Your task to perform on an android device: turn on javascript in the chrome app Image 0: 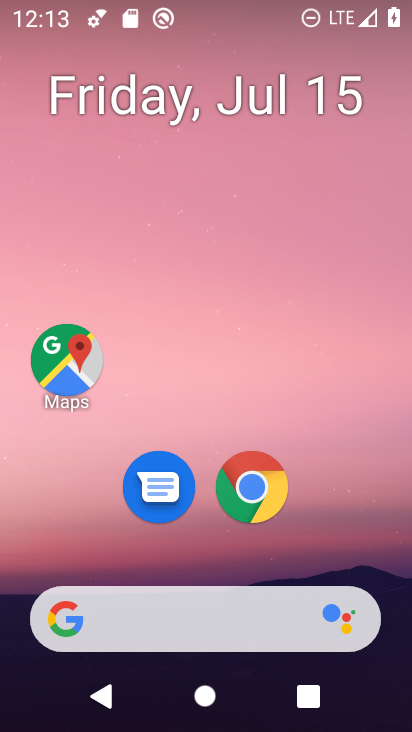
Step 0: drag from (246, 624) to (250, 62)
Your task to perform on an android device: turn on javascript in the chrome app Image 1: 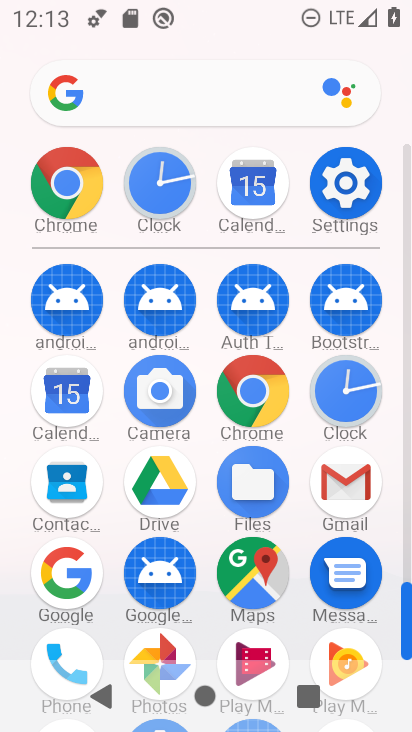
Step 1: click (252, 402)
Your task to perform on an android device: turn on javascript in the chrome app Image 2: 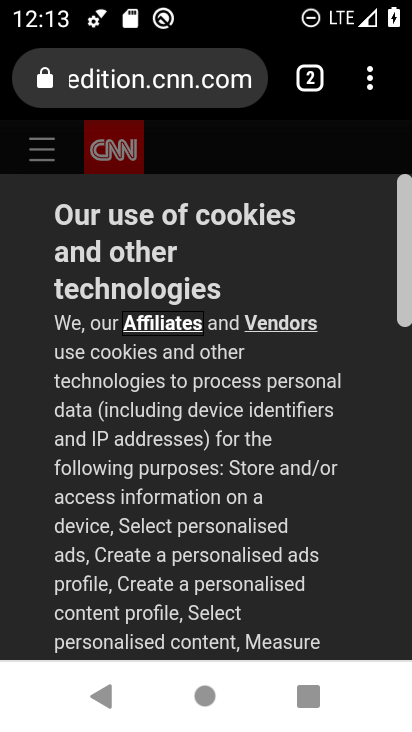
Step 2: click (371, 100)
Your task to perform on an android device: turn on javascript in the chrome app Image 3: 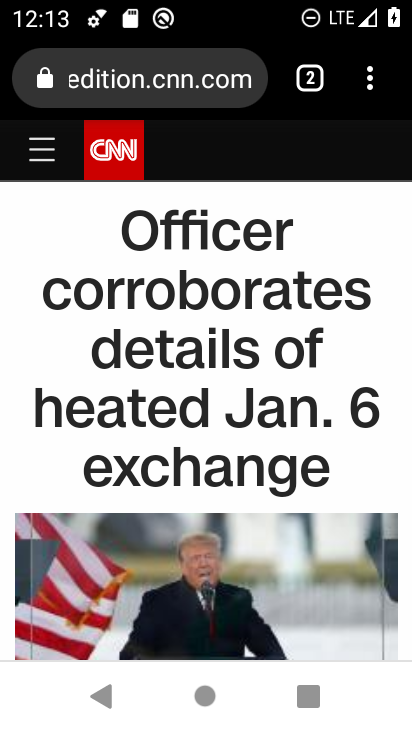
Step 3: click (364, 94)
Your task to perform on an android device: turn on javascript in the chrome app Image 4: 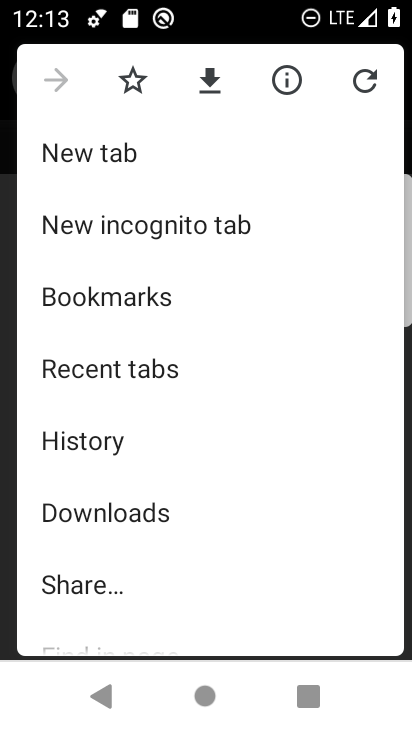
Step 4: drag from (183, 529) to (212, 95)
Your task to perform on an android device: turn on javascript in the chrome app Image 5: 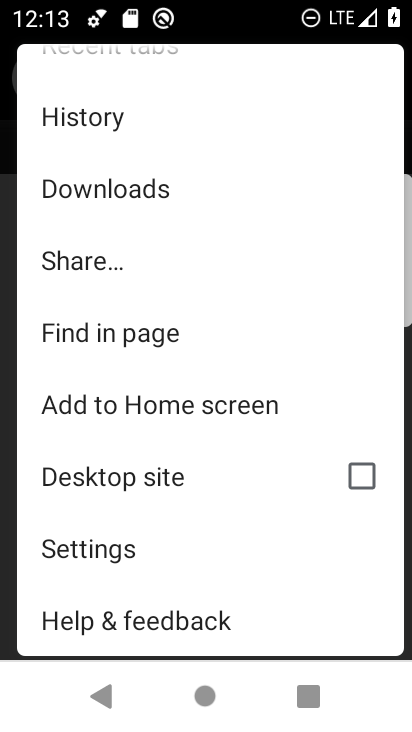
Step 5: click (130, 552)
Your task to perform on an android device: turn on javascript in the chrome app Image 6: 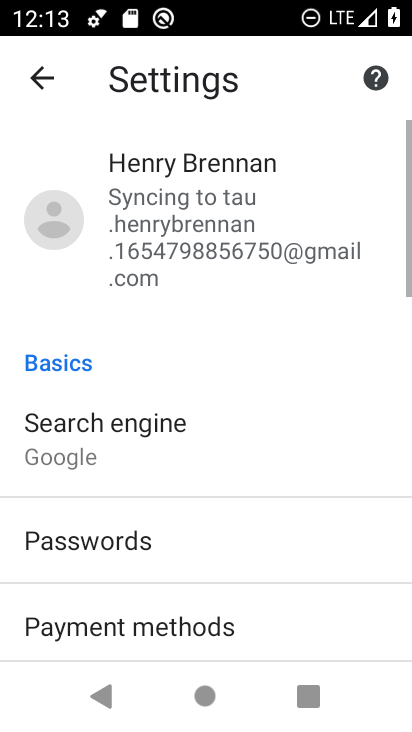
Step 6: drag from (134, 545) to (161, 207)
Your task to perform on an android device: turn on javascript in the chrome app Image 7: 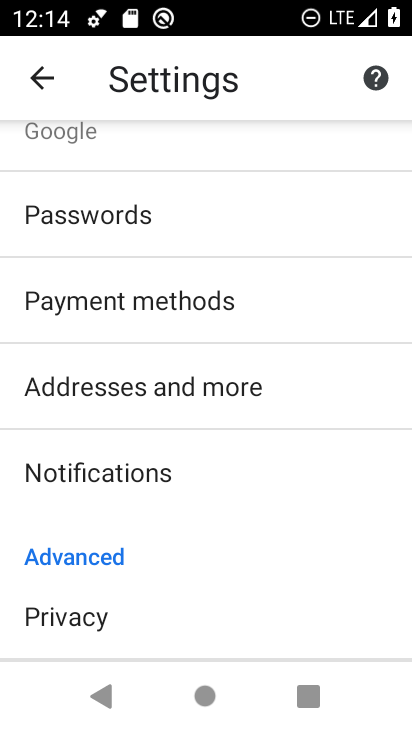
Step 7: drag from (151, 550) to (147, 261)
Your task to perform on an android device: turn on javascript in the chrome app Image 8: 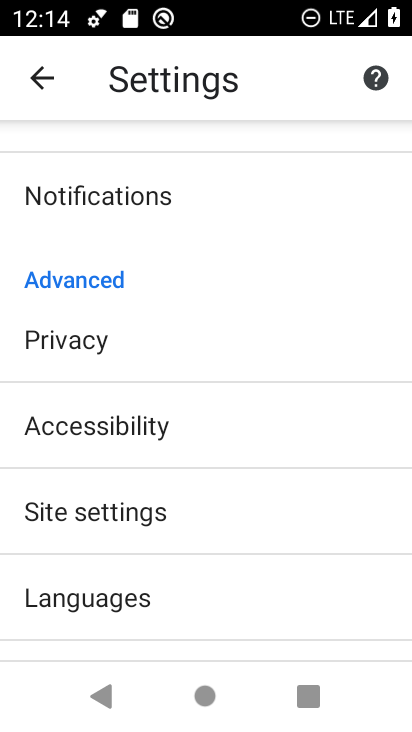
Step 8: click (111, 508)
Your task to perform on an android device: turn on javascript in the chrome app Image 9: 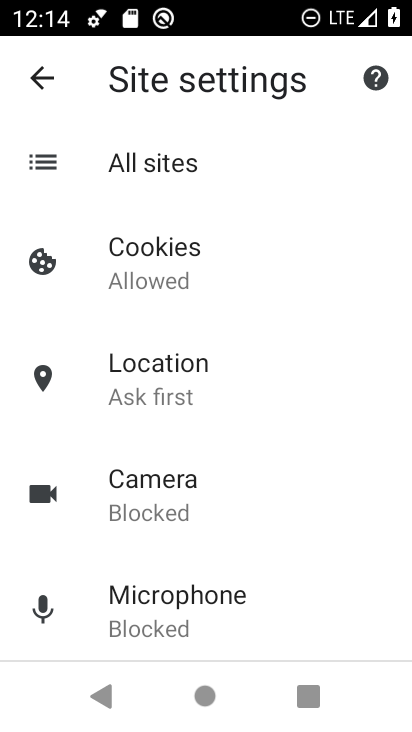
Step 9: drag from (184, 567) to (170, 286)
Your task to perform on an android device: turn on javascript in the chrome app Image 10: 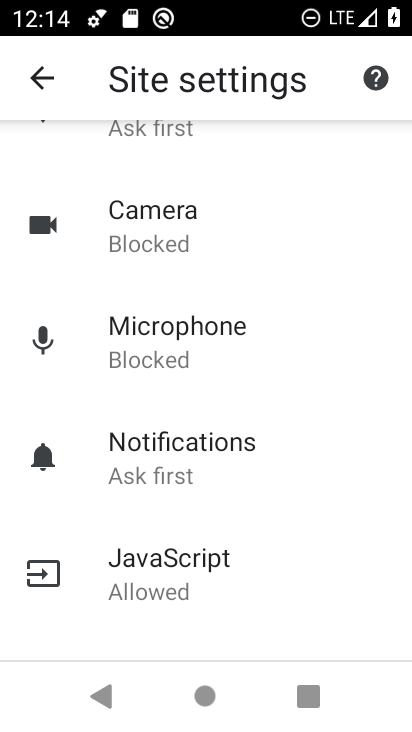
Step 10: click (206, 579)
Your task to perform on an android device: turn on javascript in the chrome app Image 11: 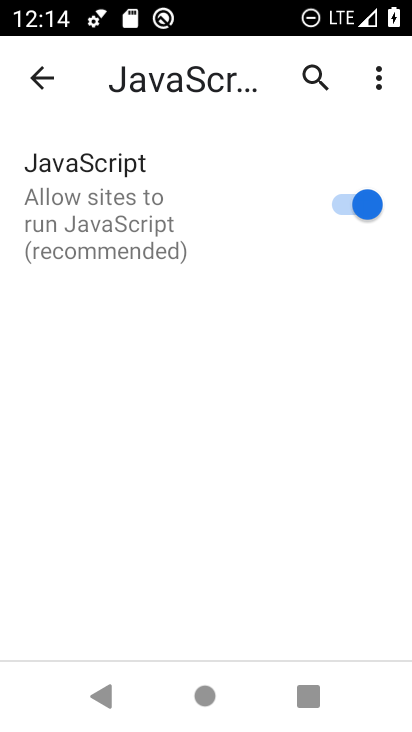
Step 11: task complete